Your task to perform on an android device: Open Google Chrome Image 0: 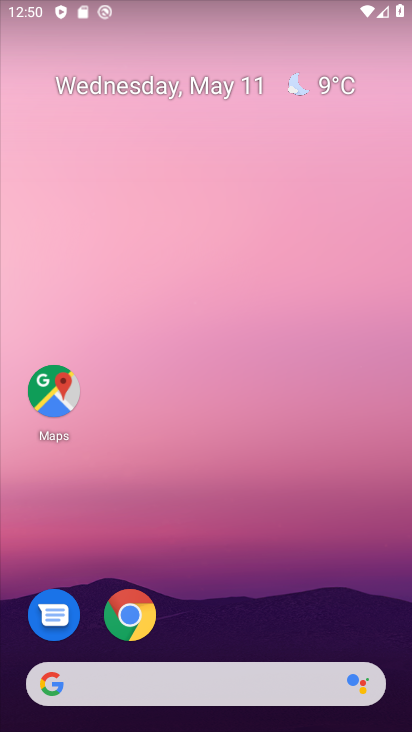
Step 0: click (144, 611)
Your task to perform on an android device: Open Google Chrome Image 1: 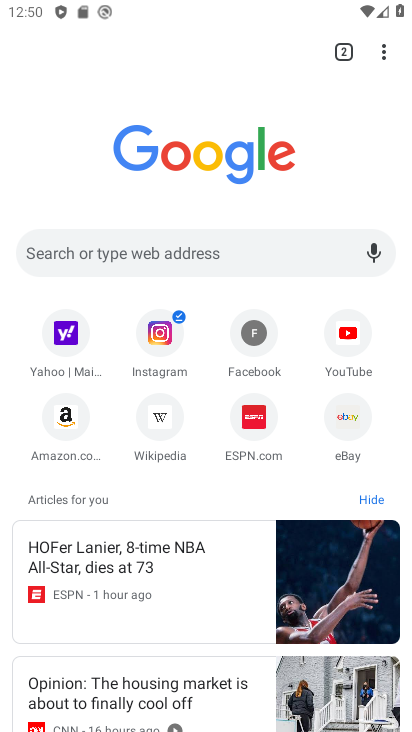
Step 1: task complete